Your task to perform on an android device: Open Google Chrome and click the shortcut for Amazon.com Image 0: 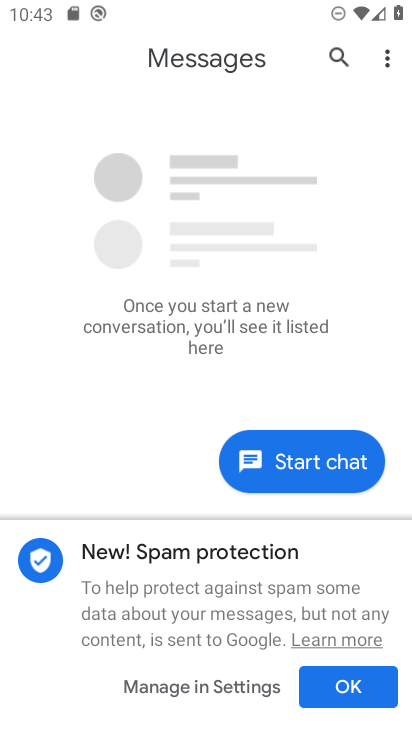
Step 0: press home button
Your task to perform on an android device: Open Google Chrome and click the shortcut for Amazon.com Image 1: 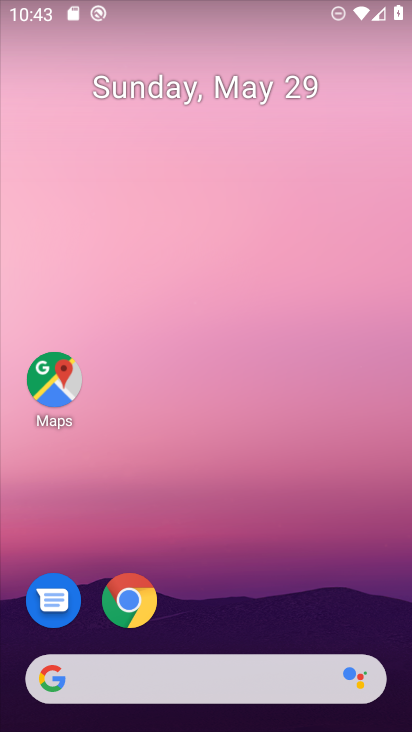
Step 1: click (123, 601)
Your task to perform on an android device: Open Google Chrome and click the shortcut for Amazon.com Image 2: 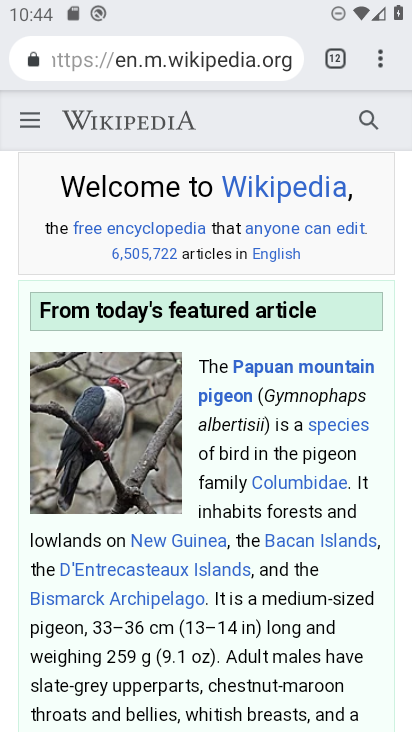
Step 2: click (383, 63)
Your task to perform on an android device: Open Google Chrome and click the shortcut for Amazon.com Image 3: 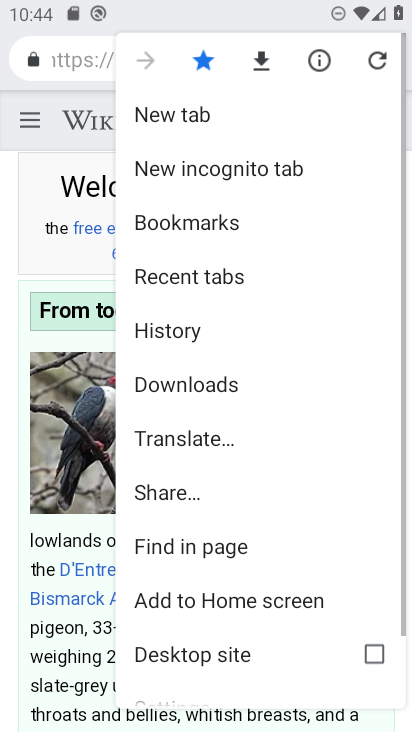
Step 3: click (154, 108)
Your task to perform on an android device: Open Google Chrome and click the shortcut for Amazon.com Image 4: 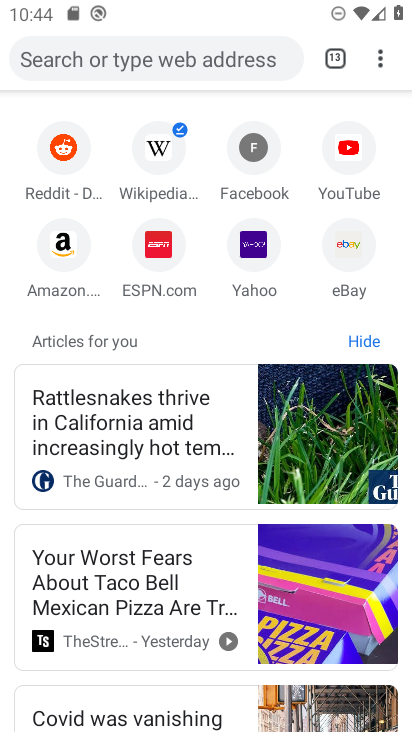
Step 4: click (67, 258)
Your task to perform on an android device: Open Google Chrome and click the shortcut for Amazon.com Image 5: 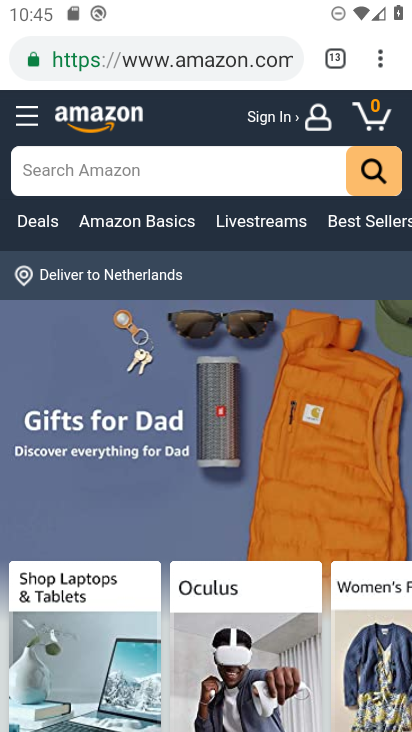
Step 5: task complete